Your task to perform on an android device: find photos in the google photos app Image 0: 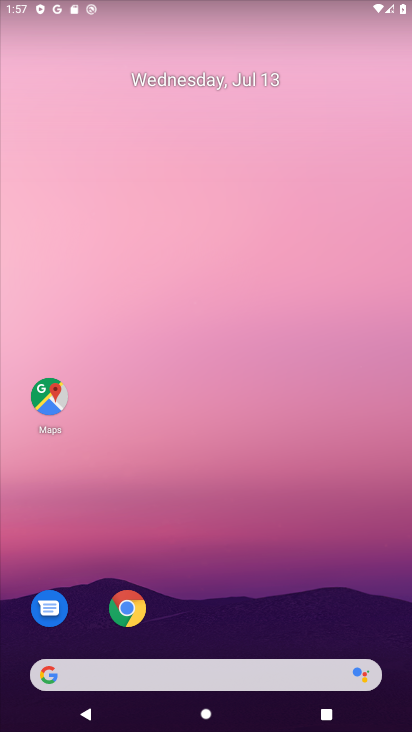
Step 0: drag from (214, 628) to (183, 34)
Your task to perform on an android device: find photos in the google photos app Image 1: 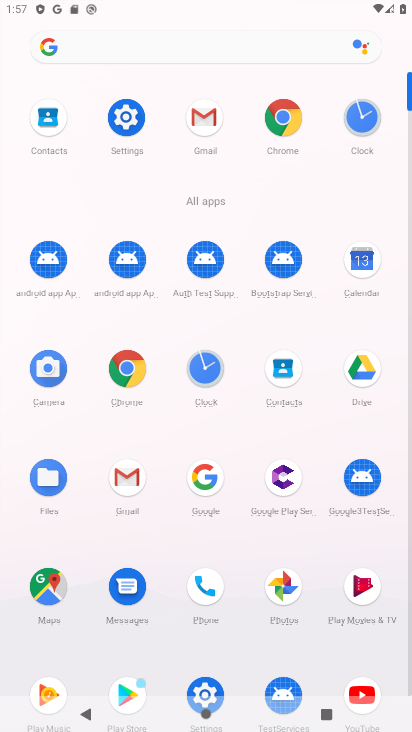
Step 1: click (281, 571)
Your task to perform on an android device: find photos in the google photos app Image 2: 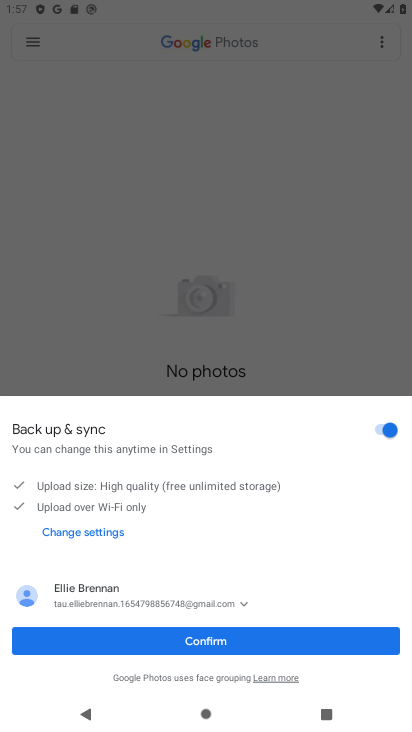
Step 2: click (145, 643)
Your task to perform on an android device: find photos in the google photos app Image 3: 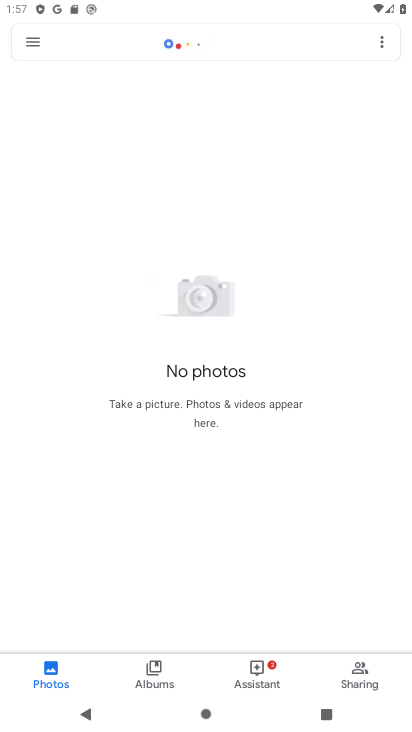
Step 3: task complete